Your task to perform on an android device: check google app version Image 0: 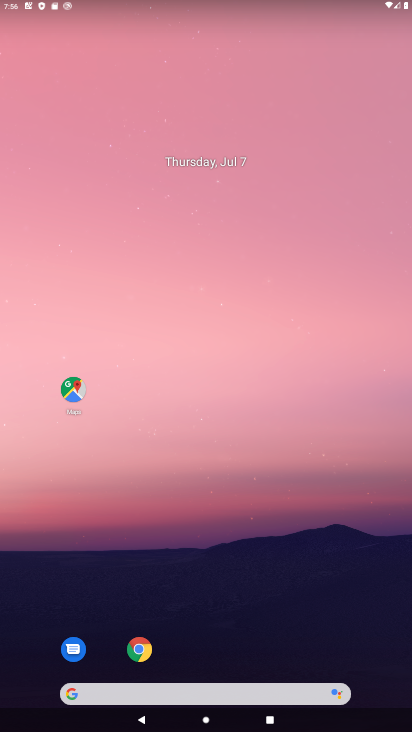
Step 0: drag from (311, 672) to (212, 295)
Your task to perform on an android device: check google app version Image 1: 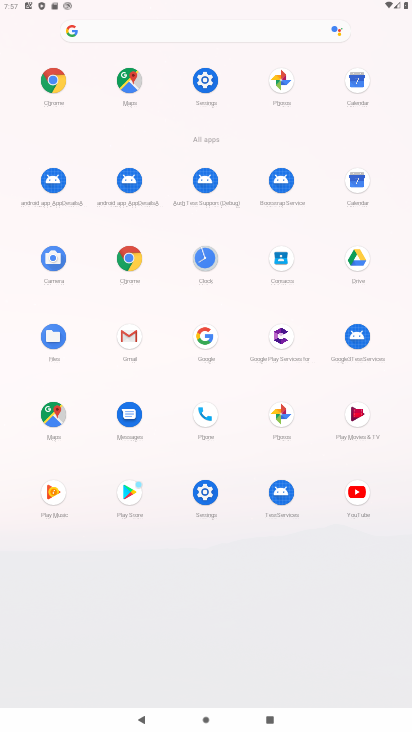
Step 1: click (202, 332)
Your task to perform on an android device: check google app version Image 2: 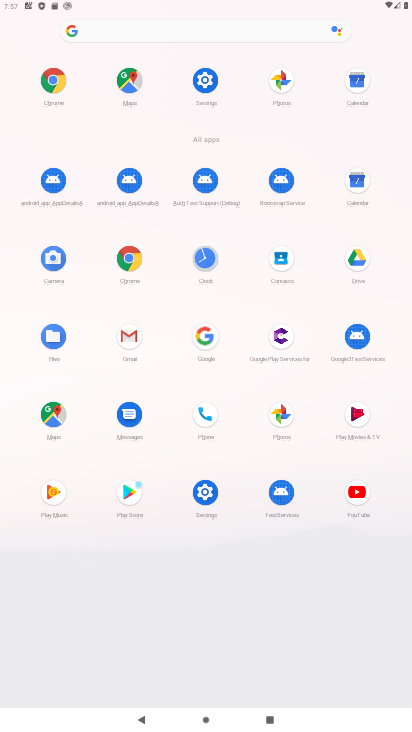
Step 2: click (206, 331)
Your task to perform on an android device: check google app version Image 3: 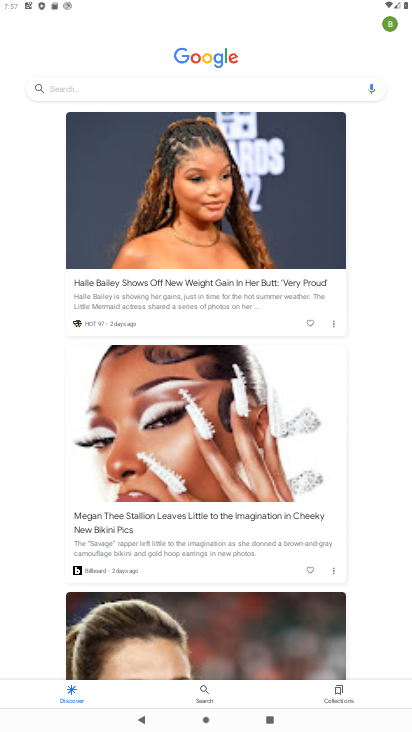
Step 3: drag from (239, 200) to (232, 603)
Your task to perform on an android device: check google app version Image 4: 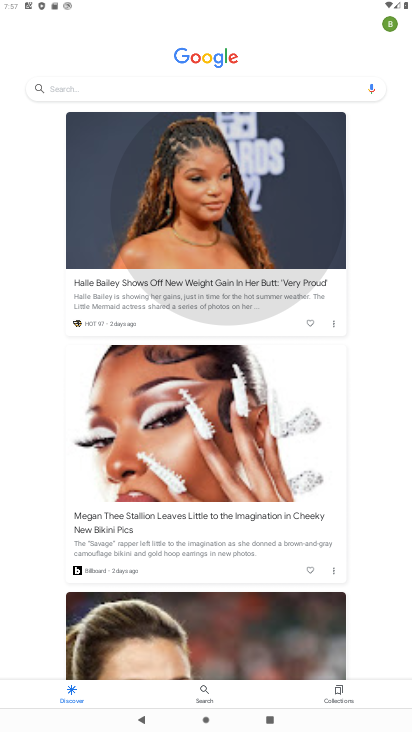
Step 4: drag from (233, 375) to (263, 687)
Your task to perform on an android device: check google app version Image 5: 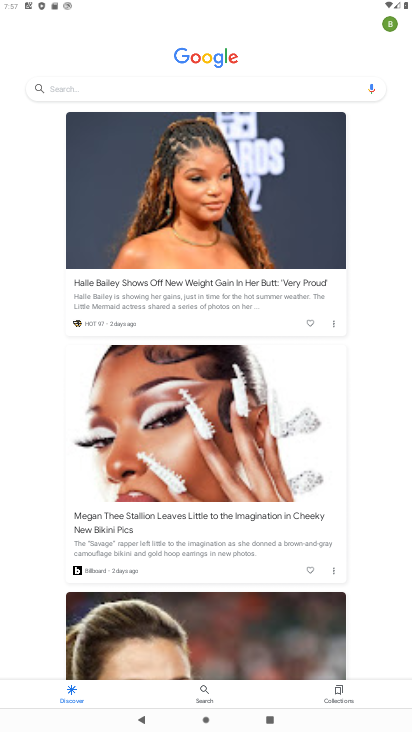
Step 5: click (342, 690)
Your task to perform on an android device: check google app version Image 6: 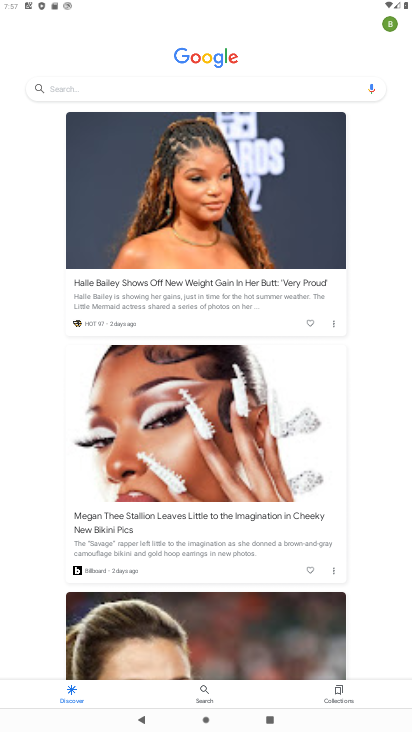
Step 6: click (343, 691)
Your task to perform on an android device: check google app version Image 7: 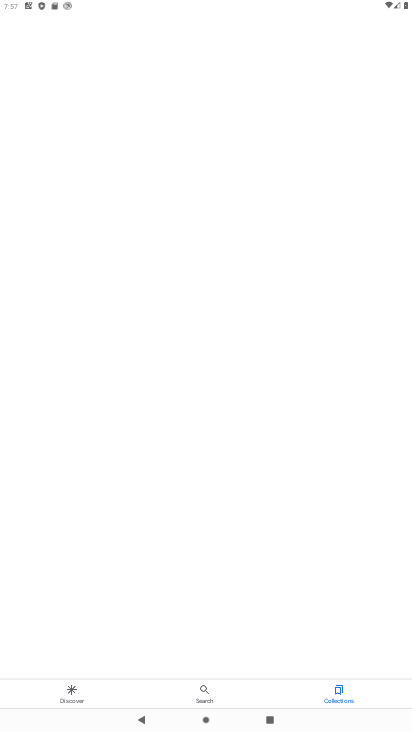
Step 7: click (342, 693)
Your task to perform on an android device: check google app version Image 8: 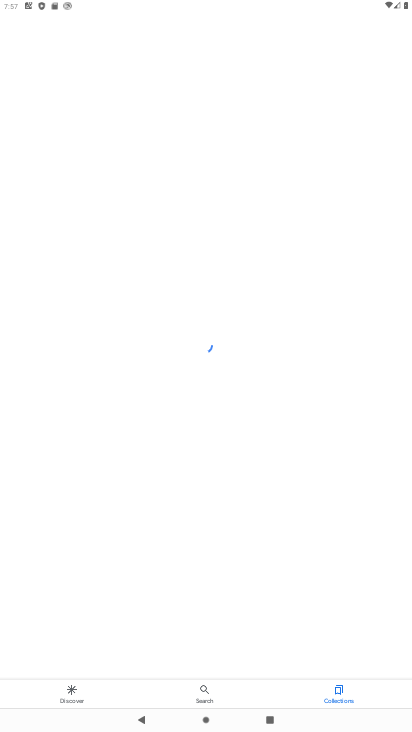
Step 8: task complete